Your task to perform on an android device: Open Chrome and go to settings Image 0: 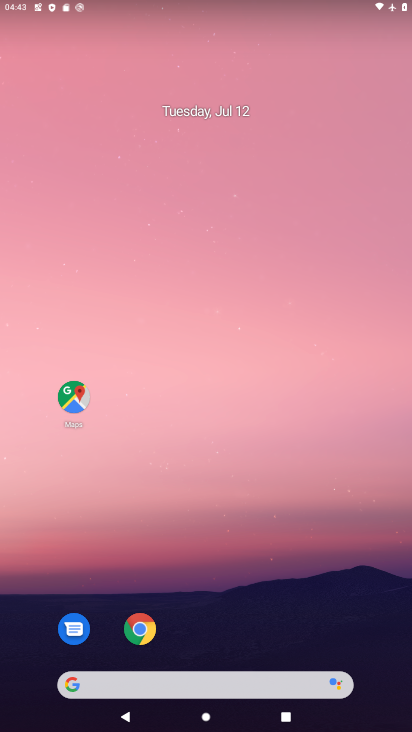
Step 0: drag from (228, 594) to (251, 55)
Your task to perform on an android device: Open Chrome and go to settings Image 1: 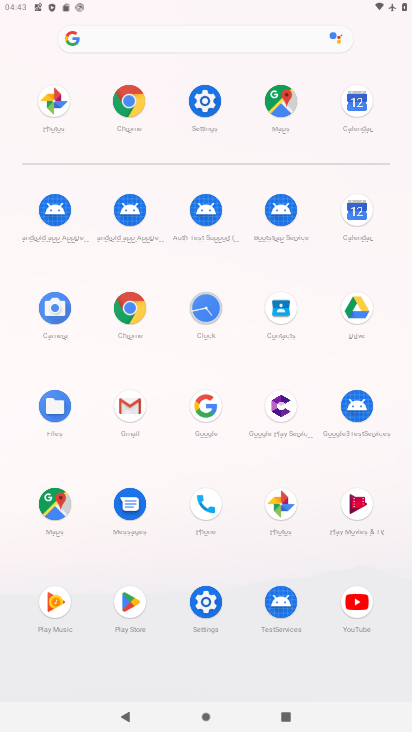
Step 1: click (131, 97)
Your task to perform on an android device: Open Chrome and go to settings Image 2: 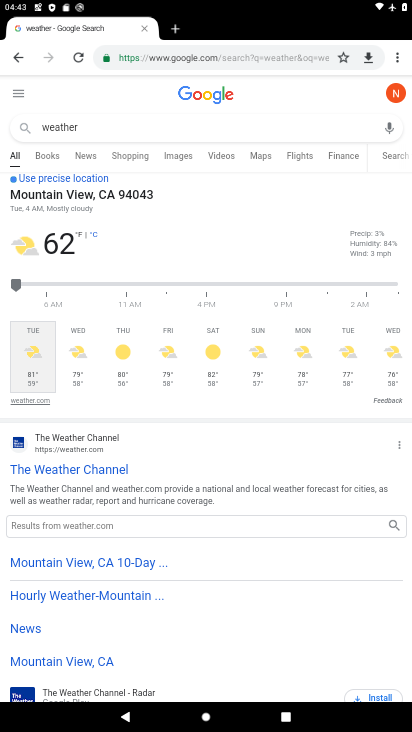
Step 2: task complete